Your task to perform on an android device: Check the weather Image 0: 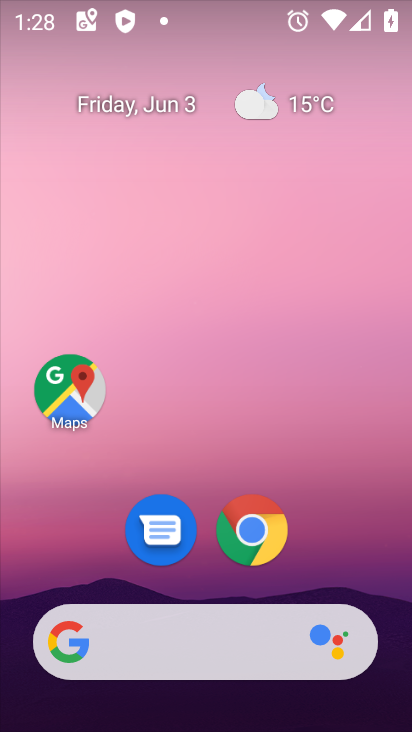
Step 0: press home button
Your task to perform on an android device: Check the weather Image 1: 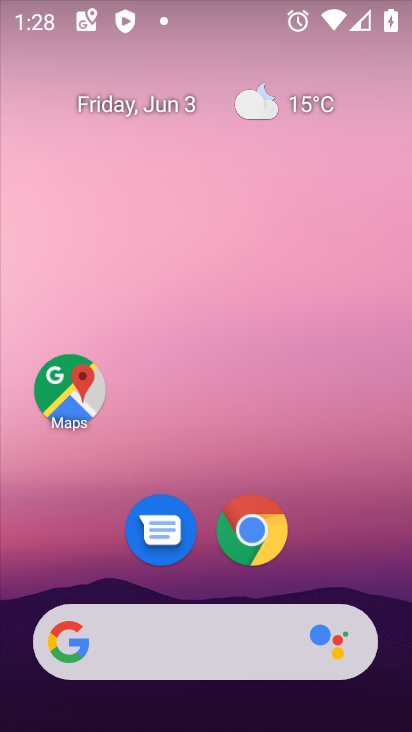
Step 1: click (175, 643)
Your task to perform on an android device: Check the weather Image 2: 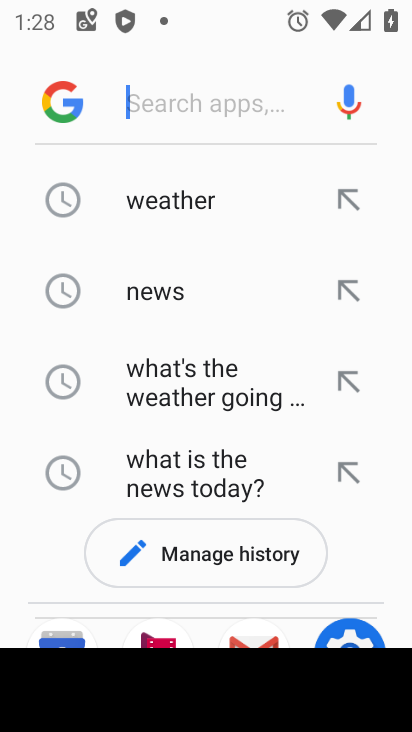
Step 2: click (216, 198)
Your task to perform on an android device: Check the weather Image 3: 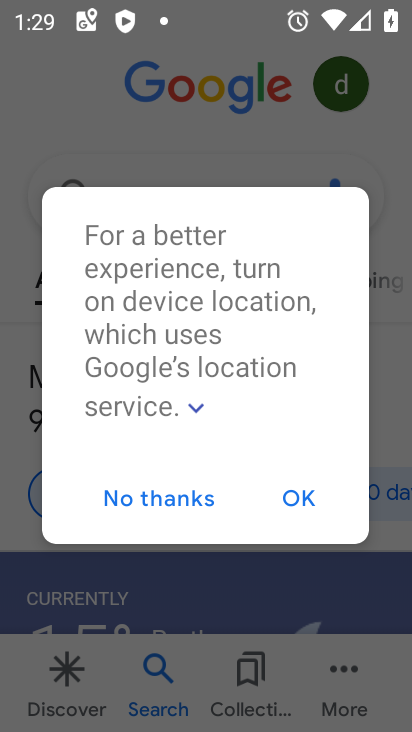
Step 3: click (153, 503)
Your task to perform on an android device: Check the weather Image 4: 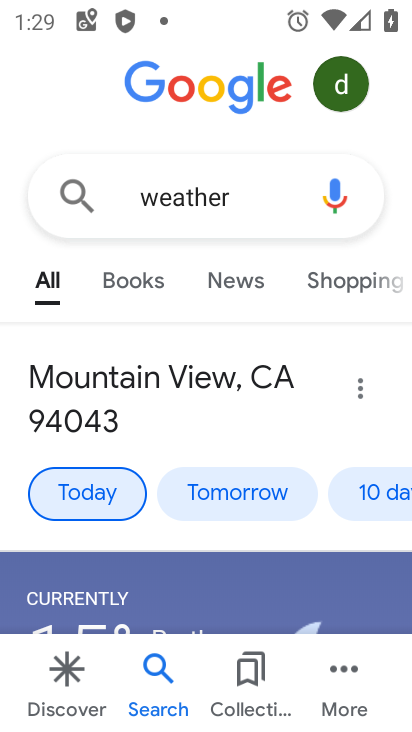
Step 4: task complete